Your task to perform on an android device: change text size in settings app Image 0: 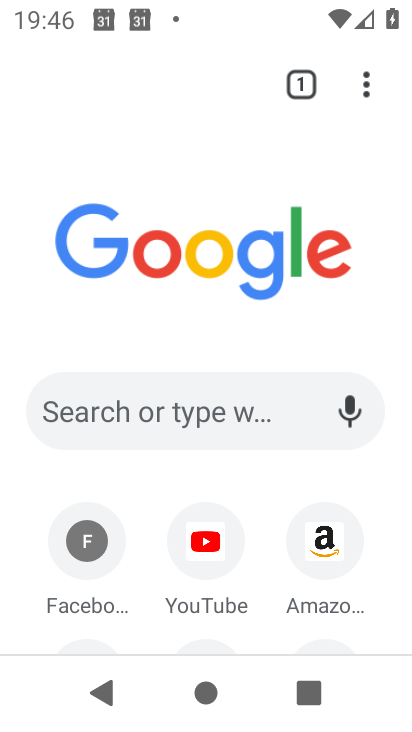
Step 0: press home button
Your task to perform on an android device: change text size in settings app Image 1: 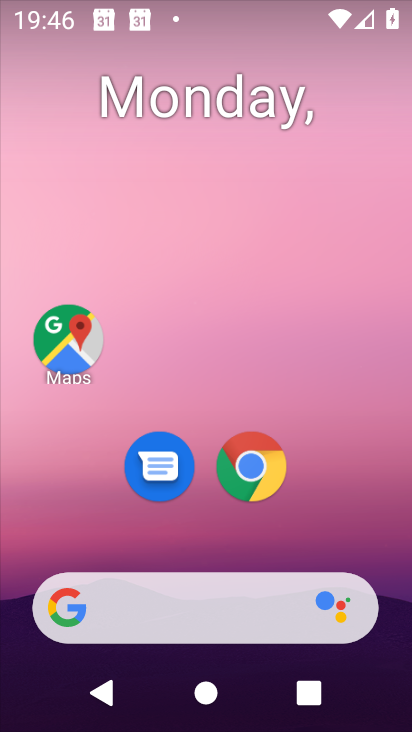
Step 1: drag from (332, 584) to (260, 193)
Your task to perform on an android device: change text size in settings app Image 2: 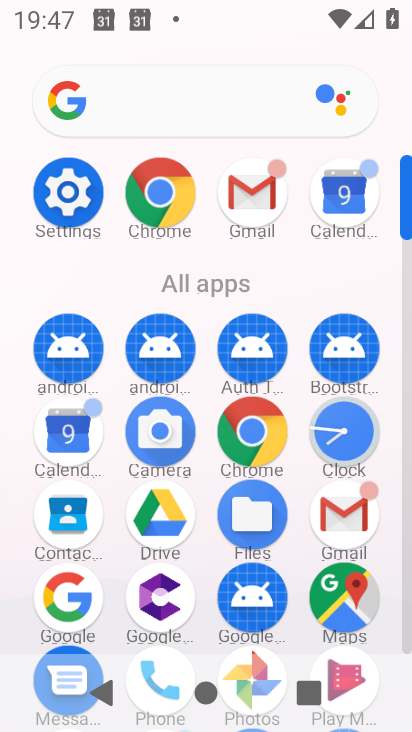
Step 2: click (64, 216)
Your task to perform on an android device: change text size in settings app Image 3: 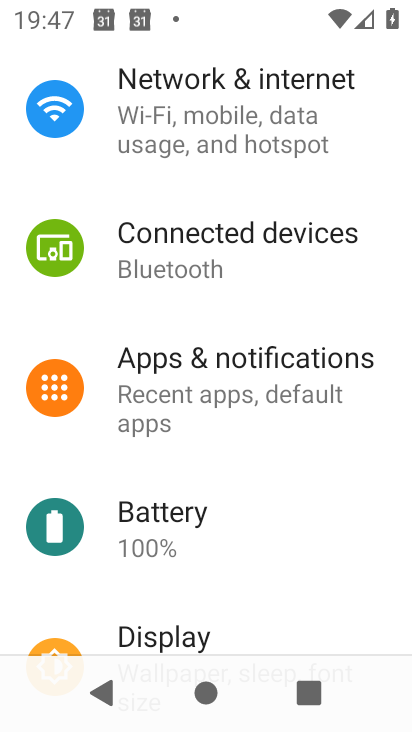
Step 3: drag from (244, 478) to (317, 106)
Your task to perform on an android device: change text size in settings app Image 4: 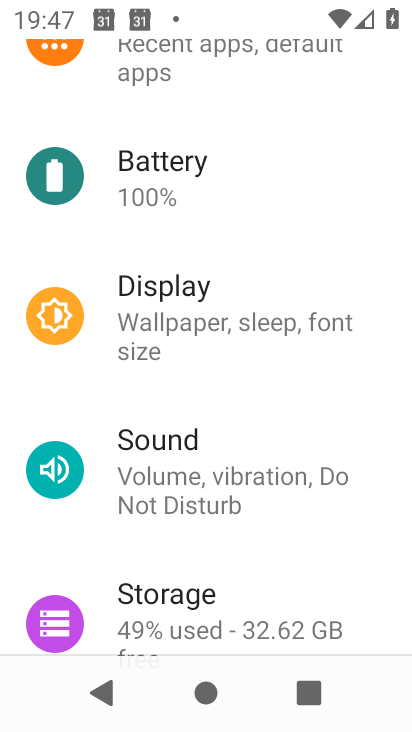
Step 4: drag from (311, 447) to (320, 340)
Your task to perform on an android device: change text size in settings app Image 5: 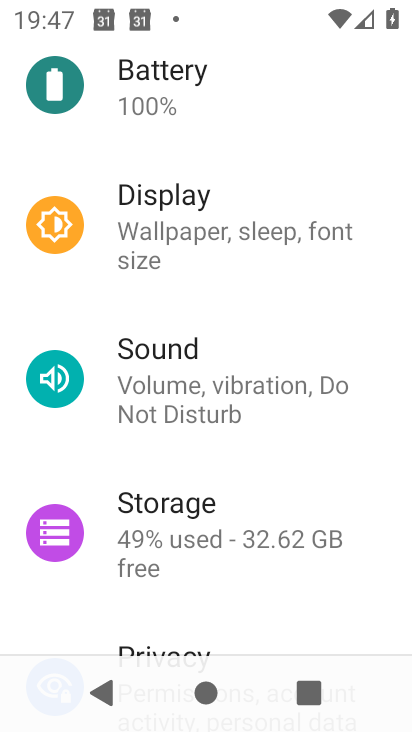
Step 5: click (256, 245)
Your task to perform on an android device: change text size in settings app Image 6: 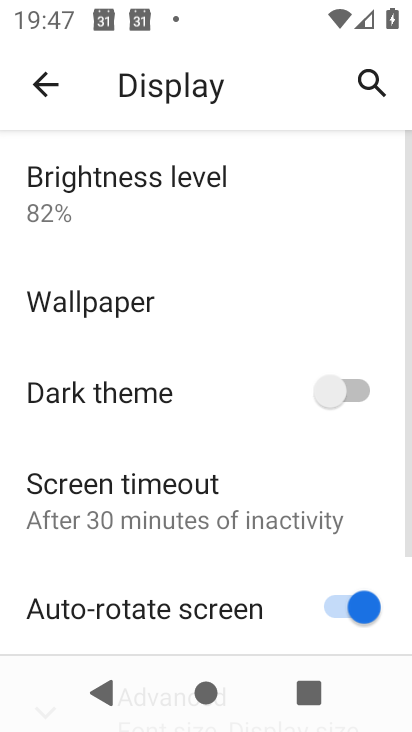
Step 6: drag from (233, 547) to (232, 222)
Your task to perform on an android device: change text size in settings app Image 7: 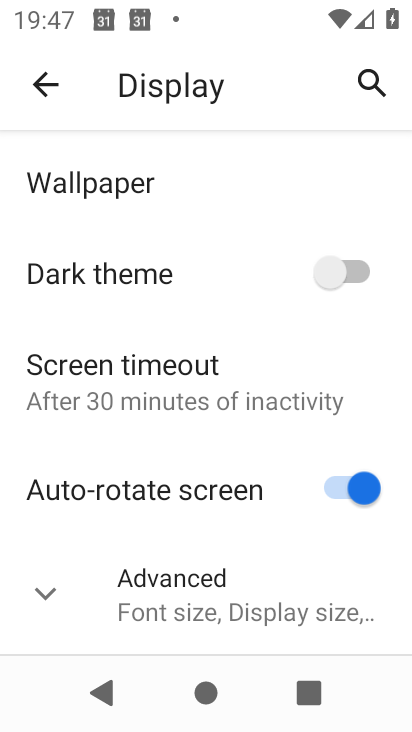
Step 7: click (178, 557)
Your task to perform on an android device: change text size in settings app Image 8: 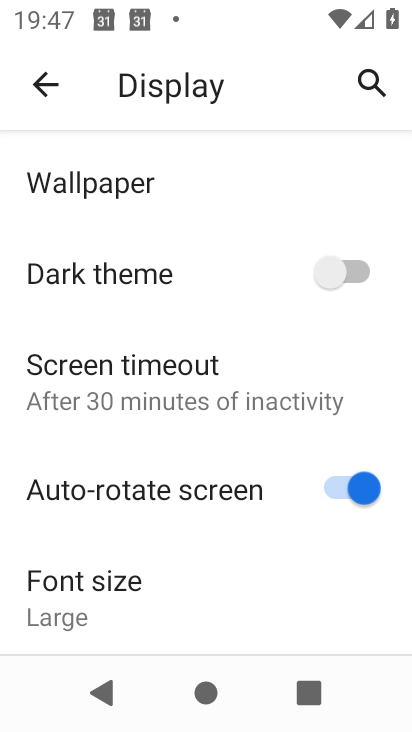
Step 8: click (105, 613)
Your task to perform on an android device: change text size in settings app Image 9: 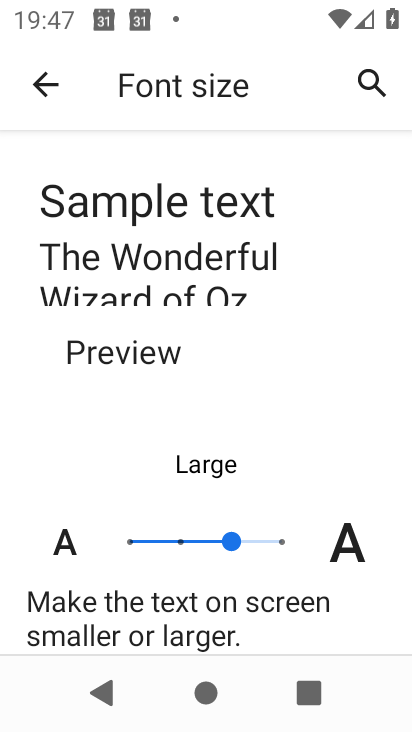
Step 9: click (167, 541)
Your task to perform on an android device: change text size in settings app Image 10: 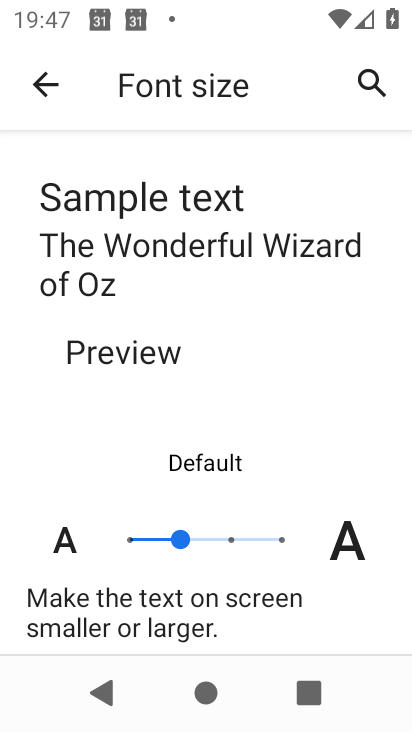
Step 10: click (135, 542)
Your task to perform on an android device: change text size in settings app Image 11: 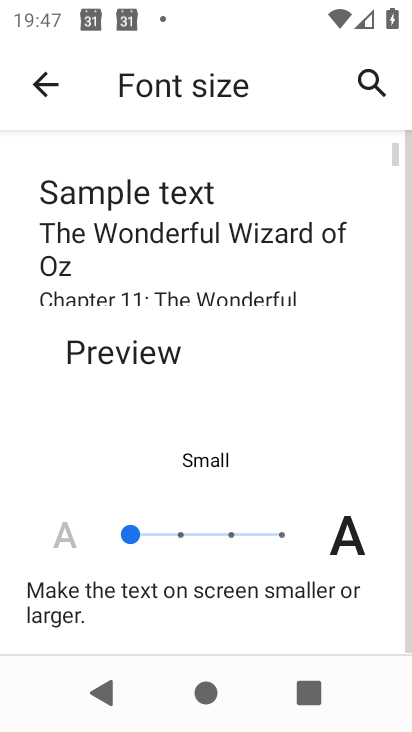
Step 11: task complete